Your task to perform on an android device: choose inbox layout in the gmail app Image 0: 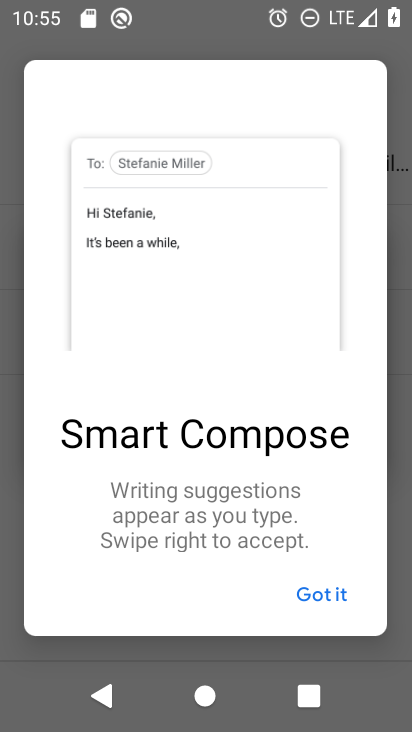
Step 0: press home button
Your task to perform on an android device: choose inbox layout in the gmail app Image 1: 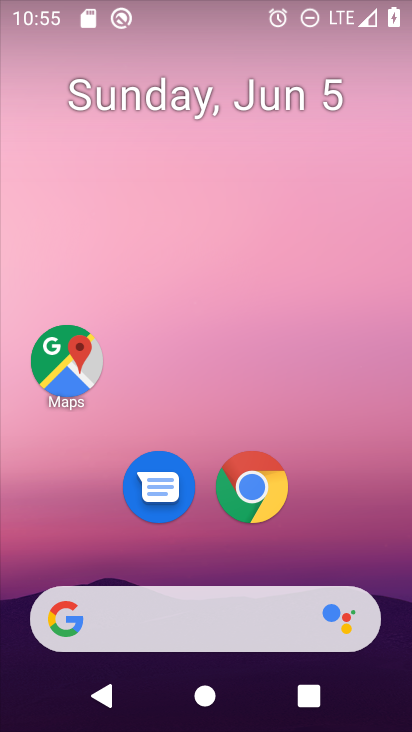
Step 1: drag from (189, 529) to (170, 283)
Your task to perform on an android device: choose inbox layout in the gmail app Image 2: 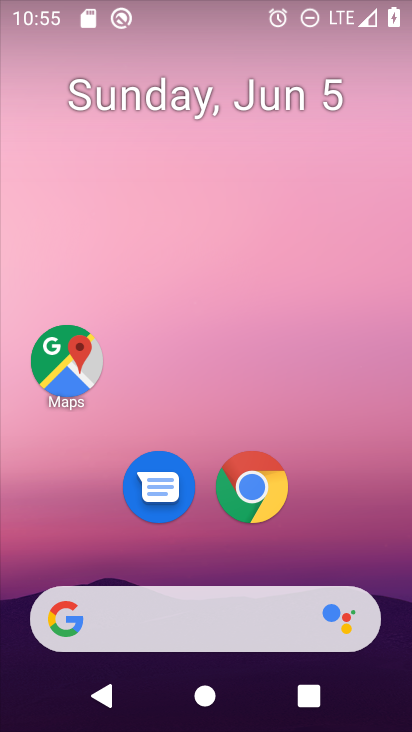
Step 2: drag from (201, 502) to (196, 250)
Your task to perform on an android device: choose inbox layout in the gmail app Image 3: 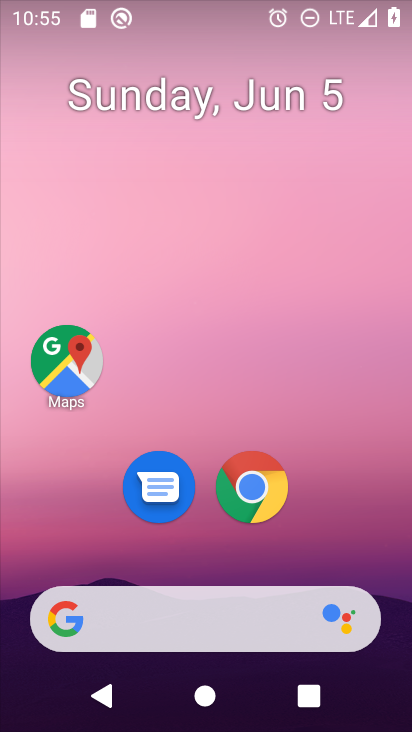
Step 3: drag from (183, 494) to (183, 222)
Your task to perform on an android device: choose inbox layout in the gmail app Image 4: 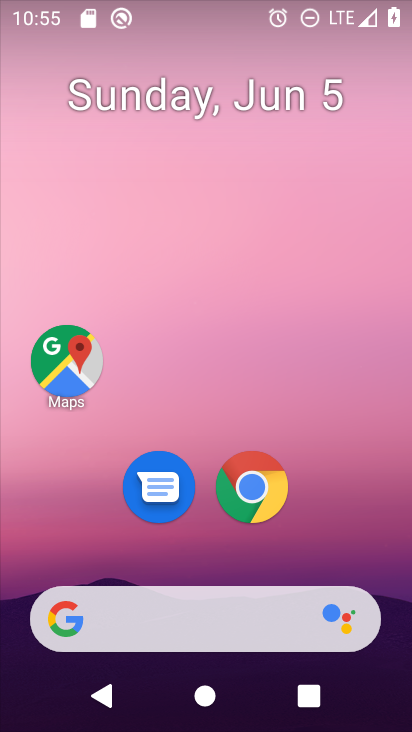
Step 4: drag from (160, 516) to (156, 124)
Your task to perform on an android device: choose inbox layout in the gmail app Image 5: 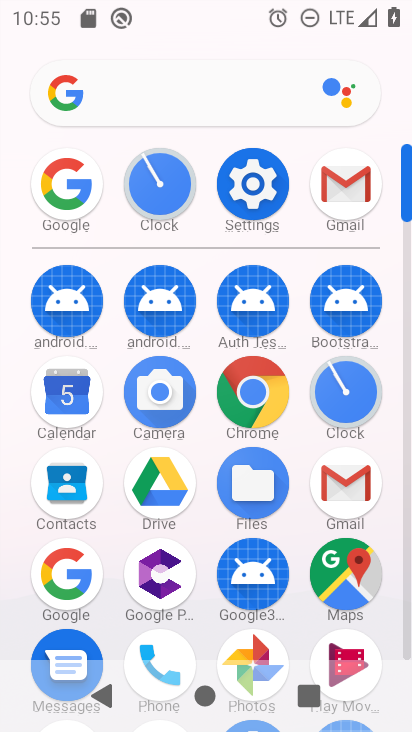
Step 5: click (336, 189)
Your task to perform on an android device: choose inbox layout in the gmail app Image 6: 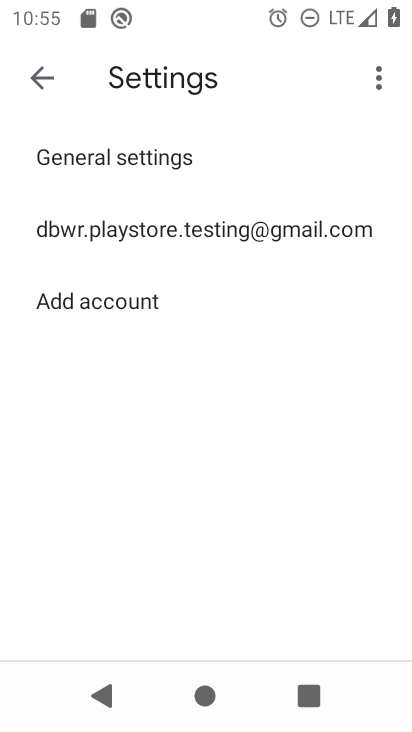
Step 6: click (95, 222)
Your task to perform on an android device: choose inbox layout in the gmail app Image 7: 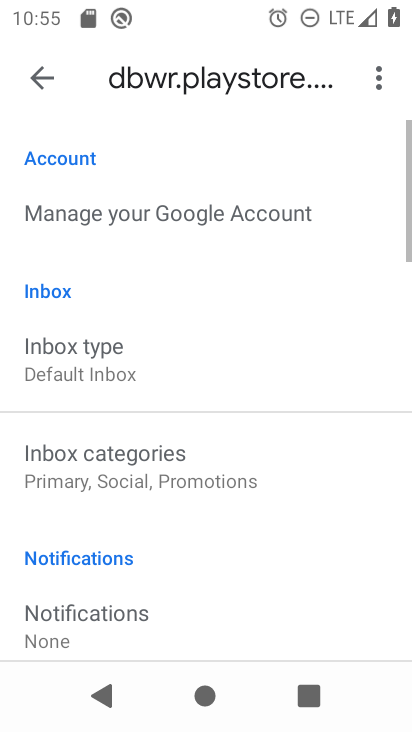
Step 7: click (123, 366)
Your task to perform on an android device: choose inbox layout in the gmail app Image 8: 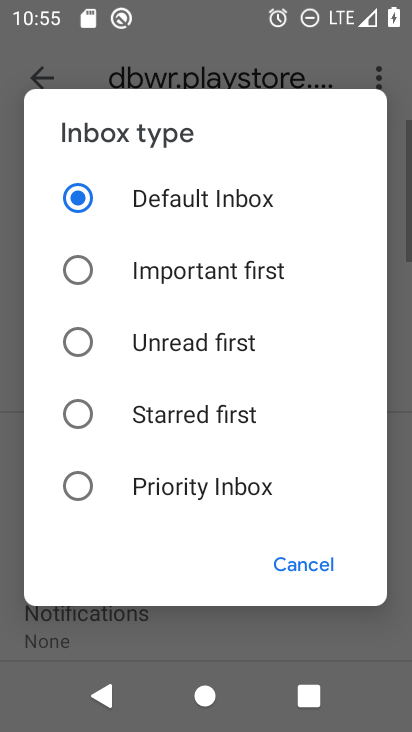
Step 8: click (123, 337)
Your task to perform on an android device: choose inbox layout in the gmail app Image 9: 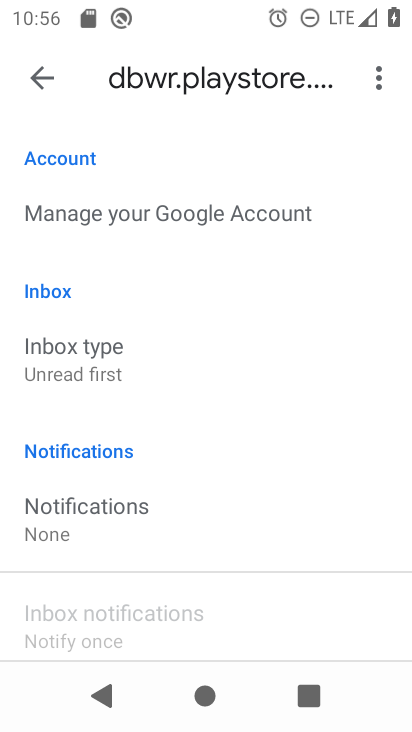
Step 9: task complete